Your task to perform on an android device: change your default location settings in chrome Image 0: 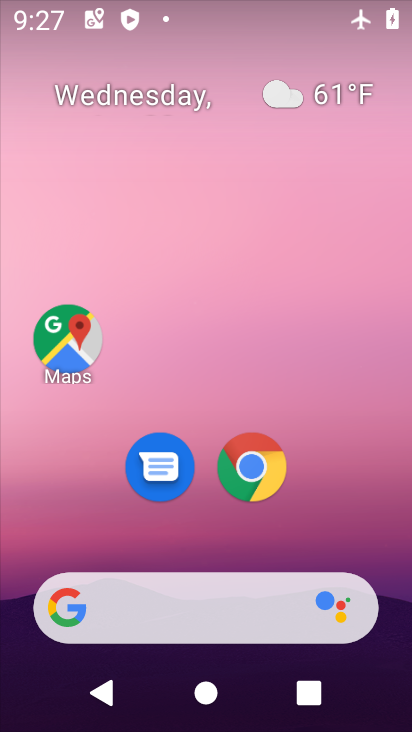
Step 0: click (247, 469)
Your task to perform on an android device: change your default location settings in chrome Image 1: 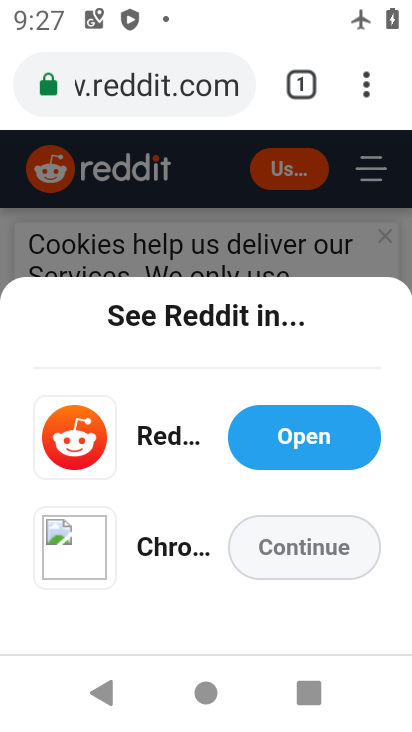
Step 1: click (367, 92)
Your task to perform on an android device: change your default location settings in chrome Image 2: 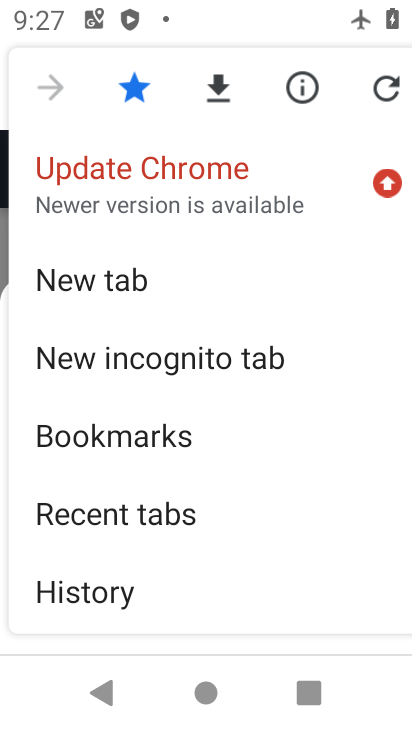
Step 2: drag from (180, 560) to (183, 228)
Your task to perform on an android device: change your default location settings in chrome Image 3: 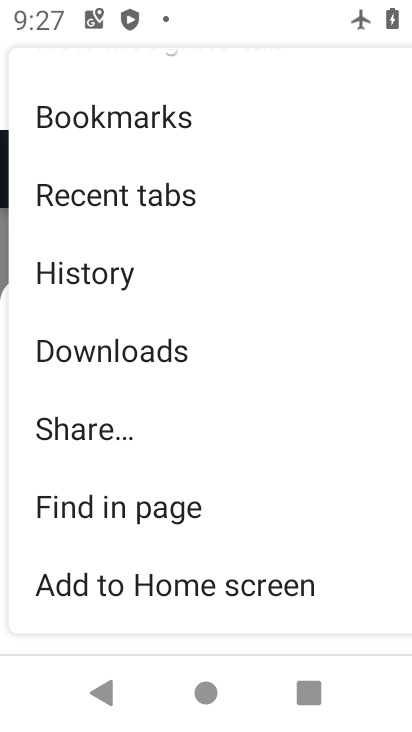
Step 3: drag from (219, 537) to (221, 200)
Your task to perform on an android device: change your default location settings in chrome Image 4: 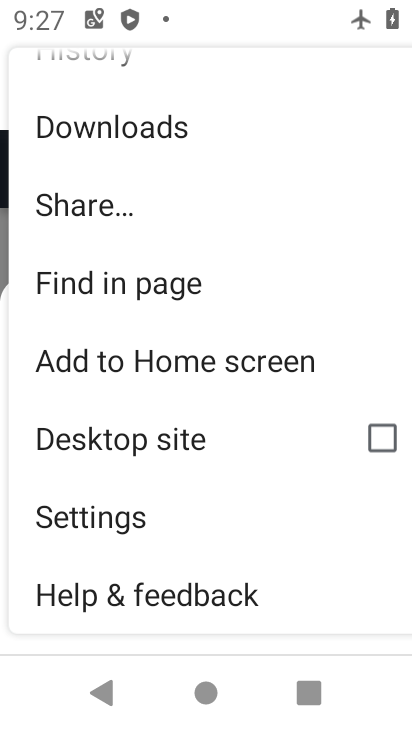
Step 4: click (97, 521)
Your task to perform on an android device: change your default location settings in chrome Image 5: 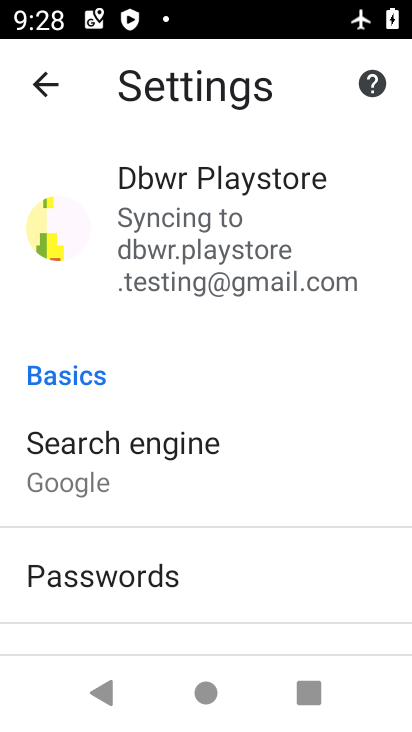
Step 5: drag from (185, 637) to (196, 291)
Your task to perform on an android device: change your default location settings in chrome Image 6: 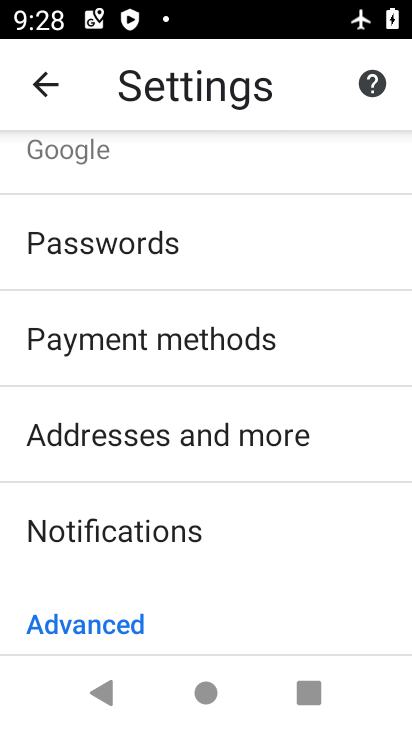
Step 6: drag from (207, 616) to (208, 319)
Your task to perform on an android device: change your default location settings in chrome Image 7: 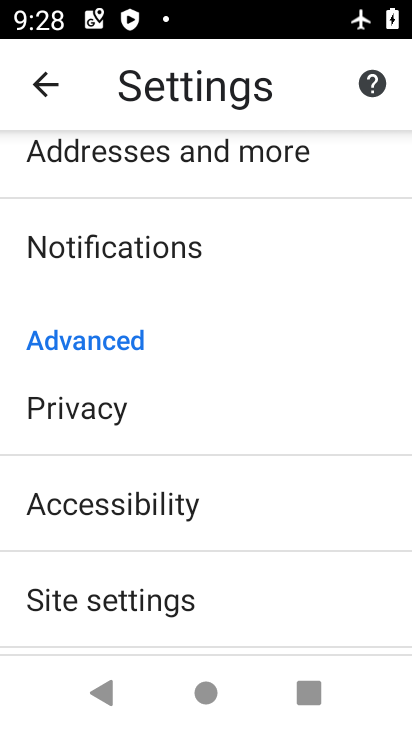
Step 7: click (147, 599)
Your task to perform on an android device: change your default location settings in chrome Image 8: 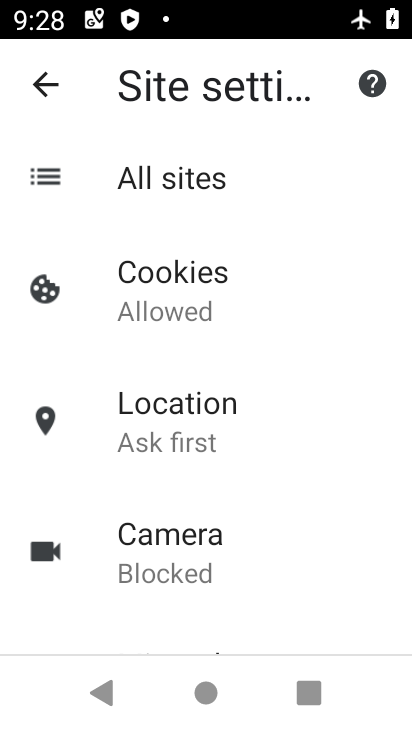
Step 8: click (164, 406)
Your task to perform on an android device: change your default location settings in chrome Image 9: 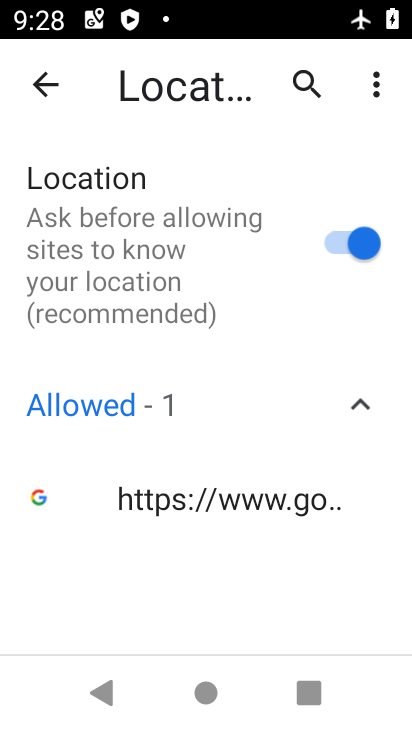
Step 9: click (333, 241)
Your task to perform on an android device: change your default location settings in chrome Image 10: 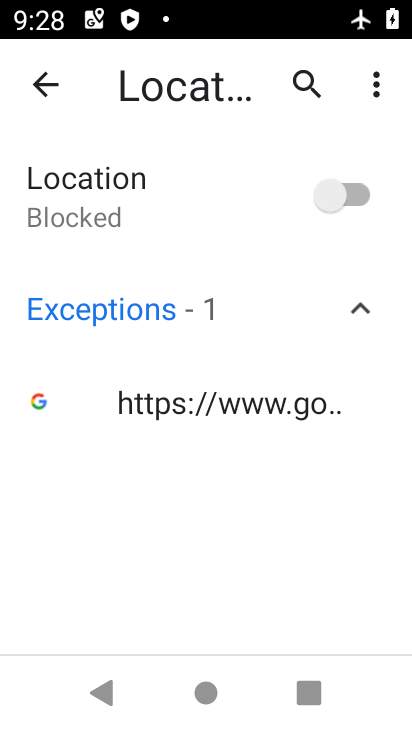
Step 10: task complete